Your task to perform on an android device: open app "Yahoo Mail" Image 0: 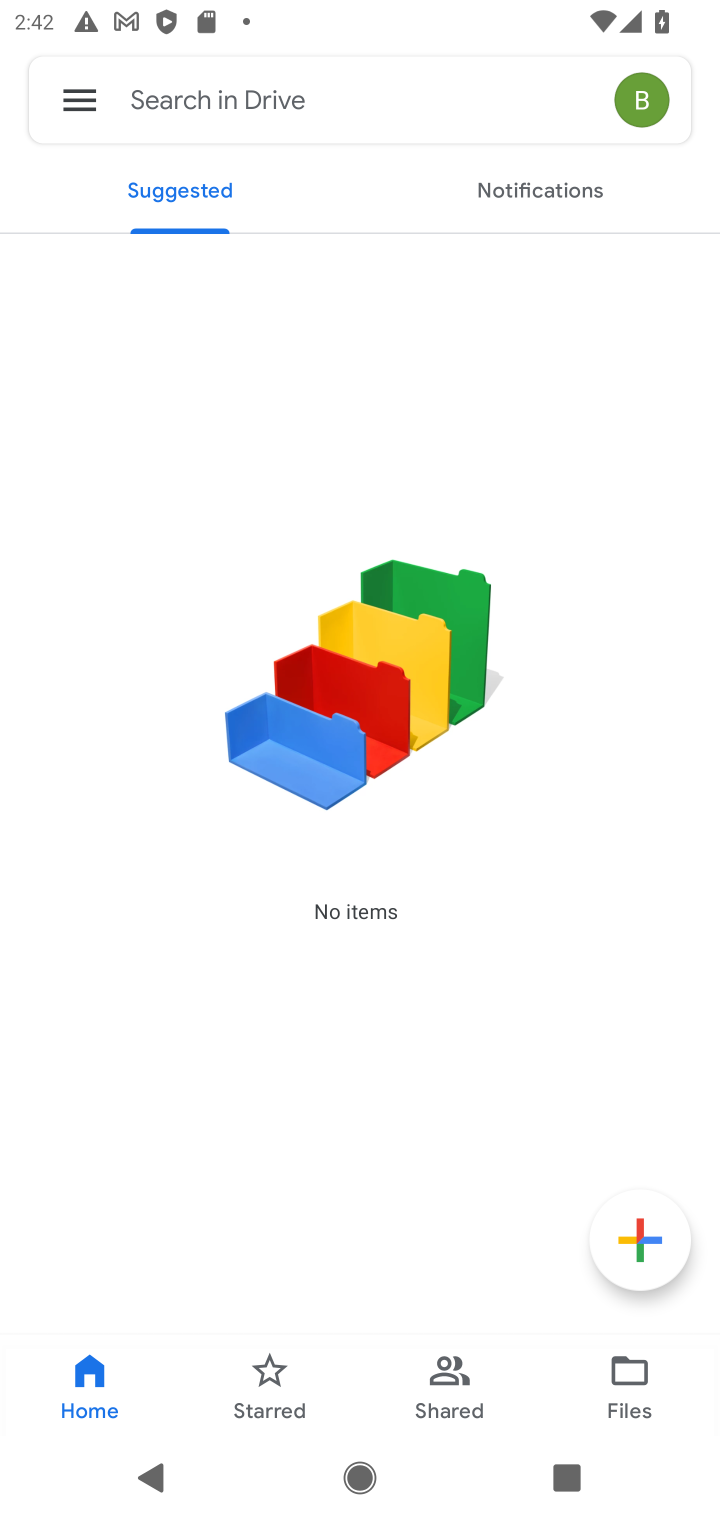
Step 0: press home button
Your task to perform on an android device: open app "Yahoo Mail" Image 1: 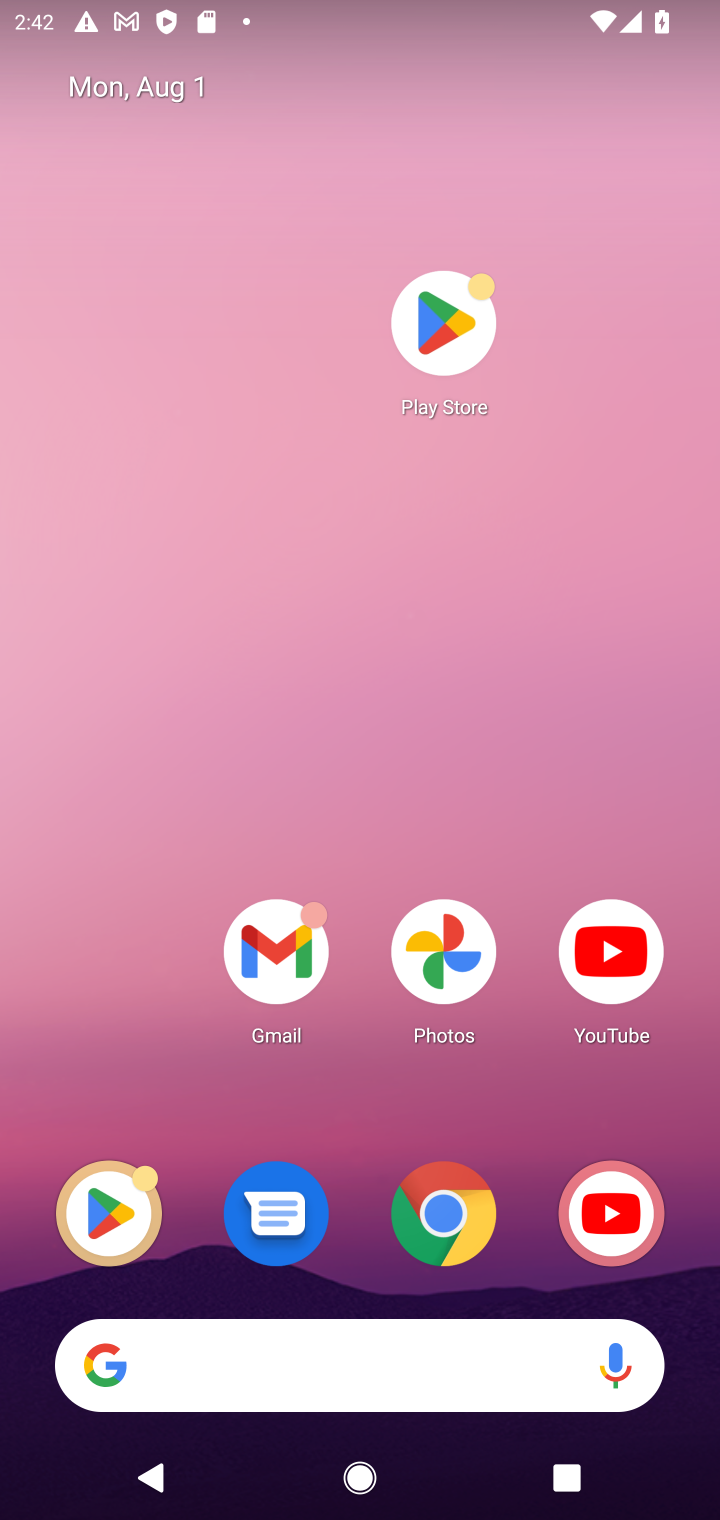
Step 1: click (454, 282)
Your task to perform on an android device: open app "Yahoo Mail" Image 2: 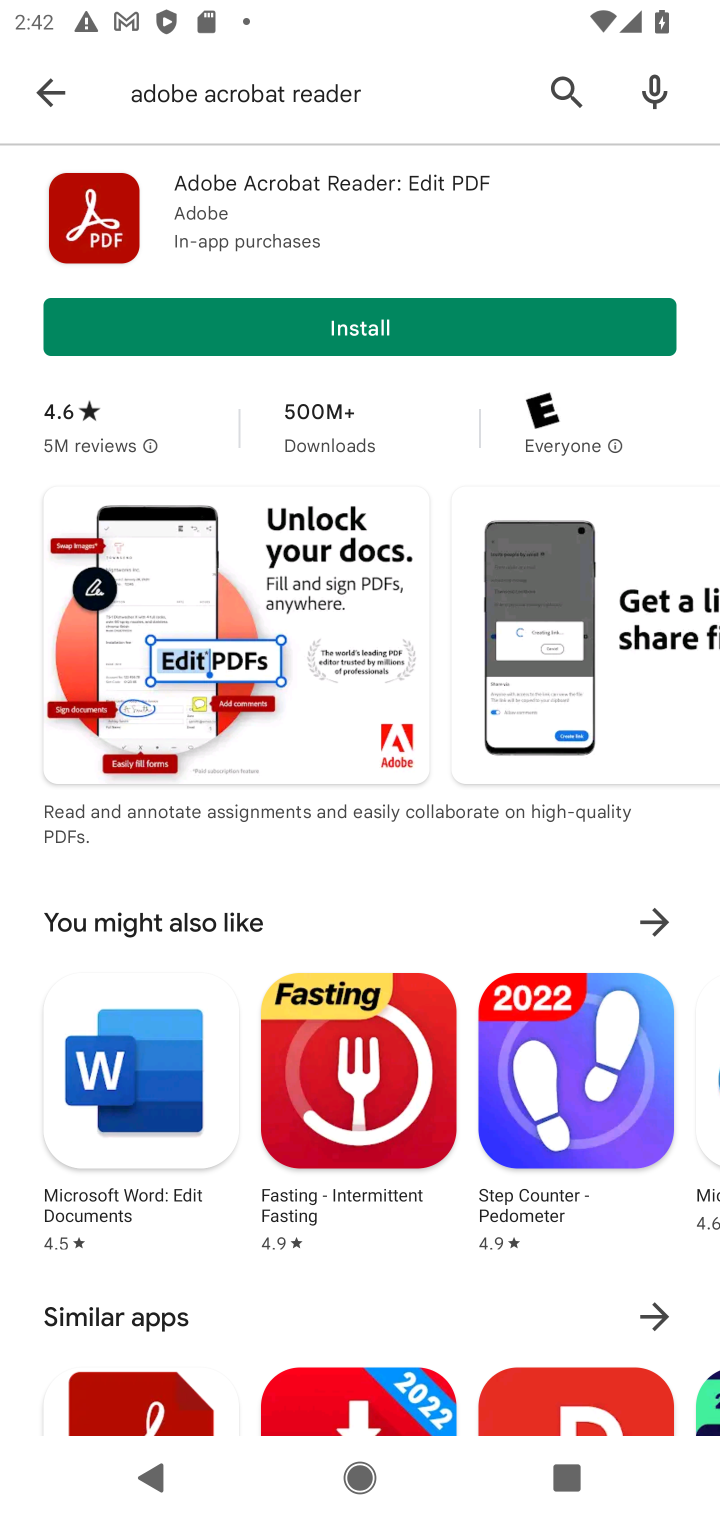
Step 2: click (545, 93)
Your task to perform on an android device: open app "Yahoo Mail" Image 3: 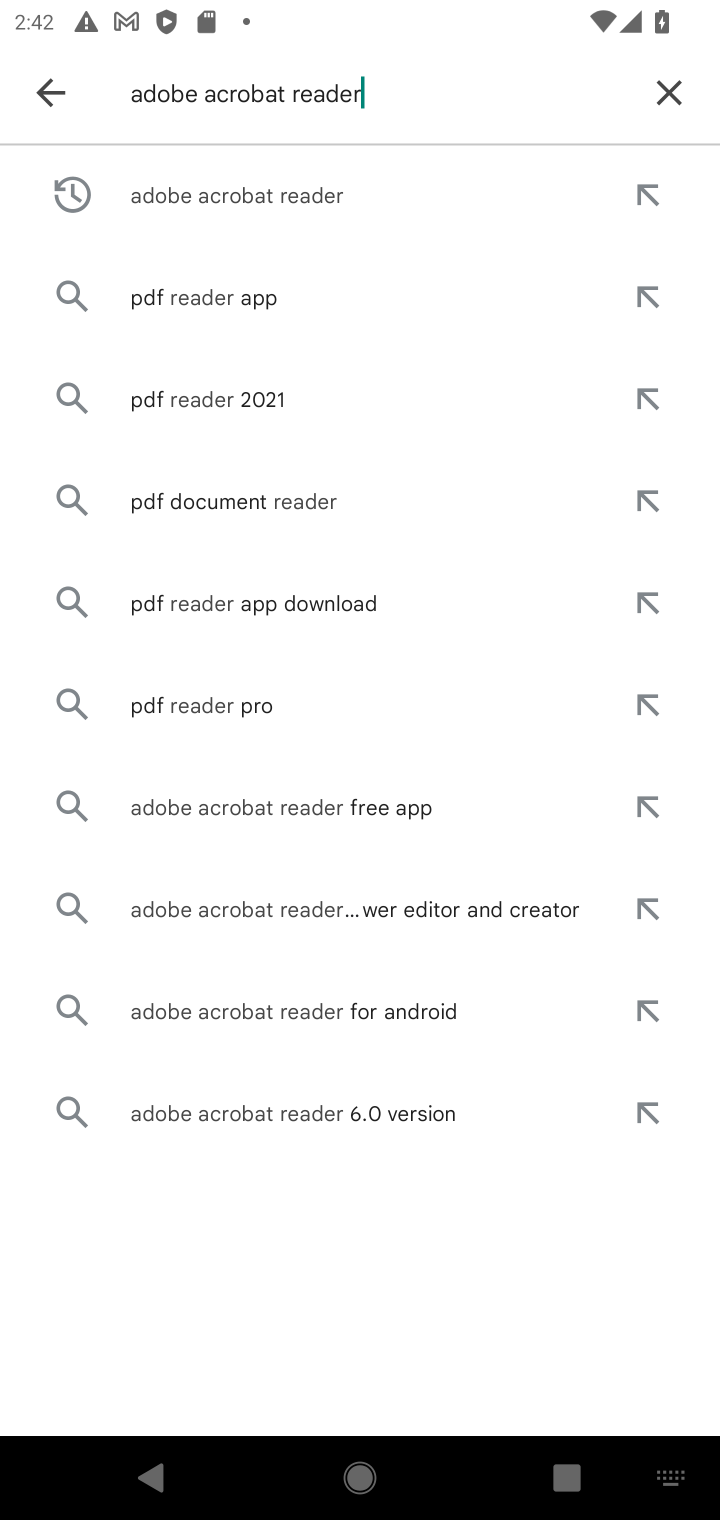
Step 3: click (659, 98)
Your task to perform on an android device: open app "Yahoo Mail" Image 4: 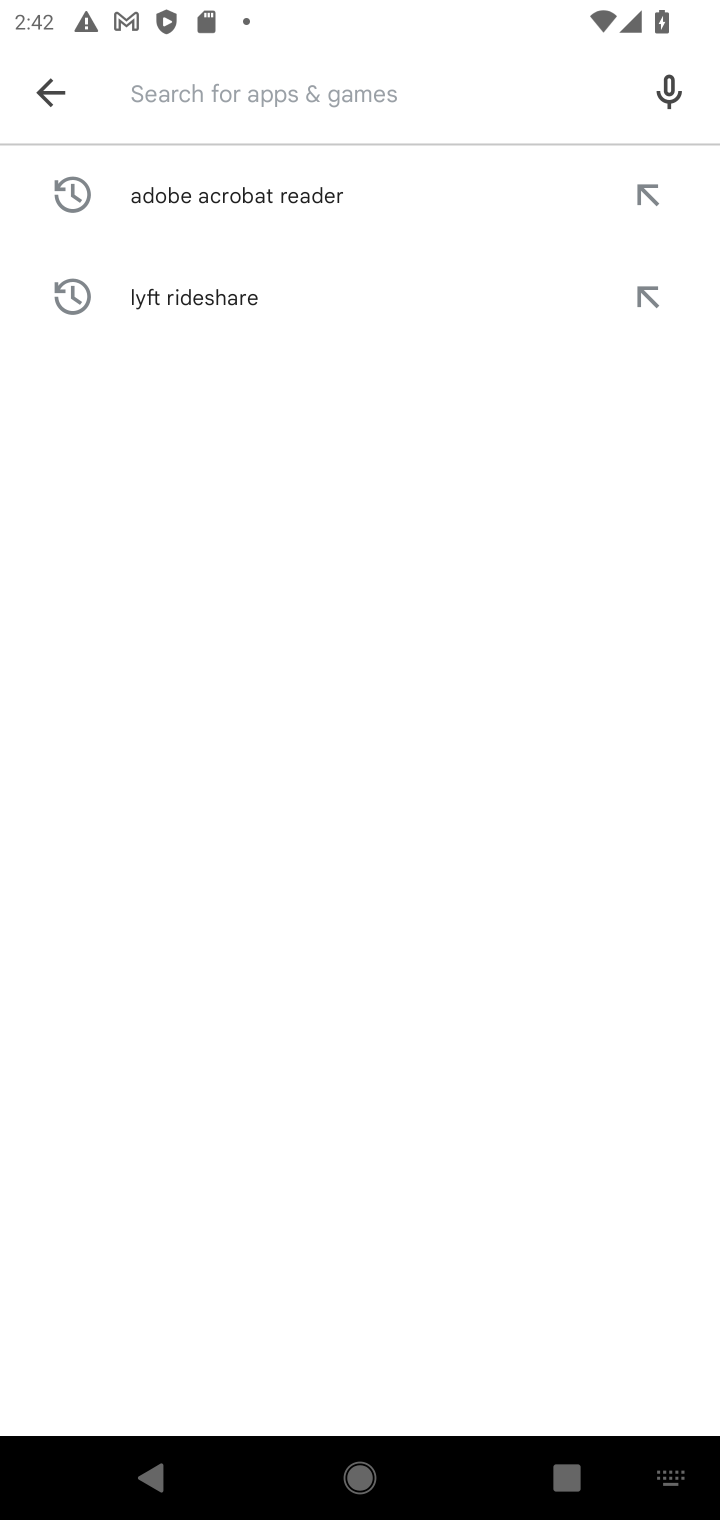
Step 4: click (450, 118)
Your task to perform on an android device: open app "Yahoo Mail" Image 5: 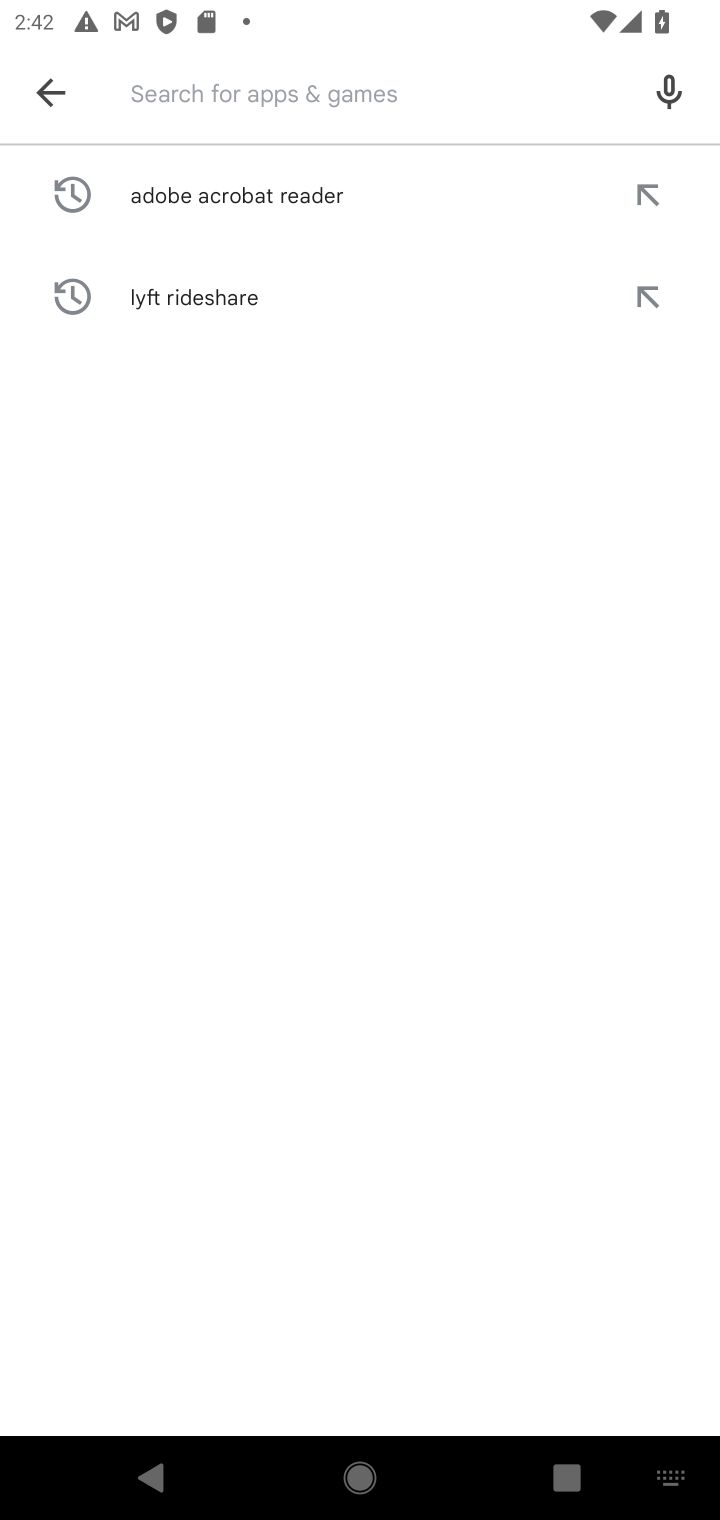
Step 5: type "yahoo mail"
Your task to perform on an android device: open app "Yahoo Mail" Image 6: 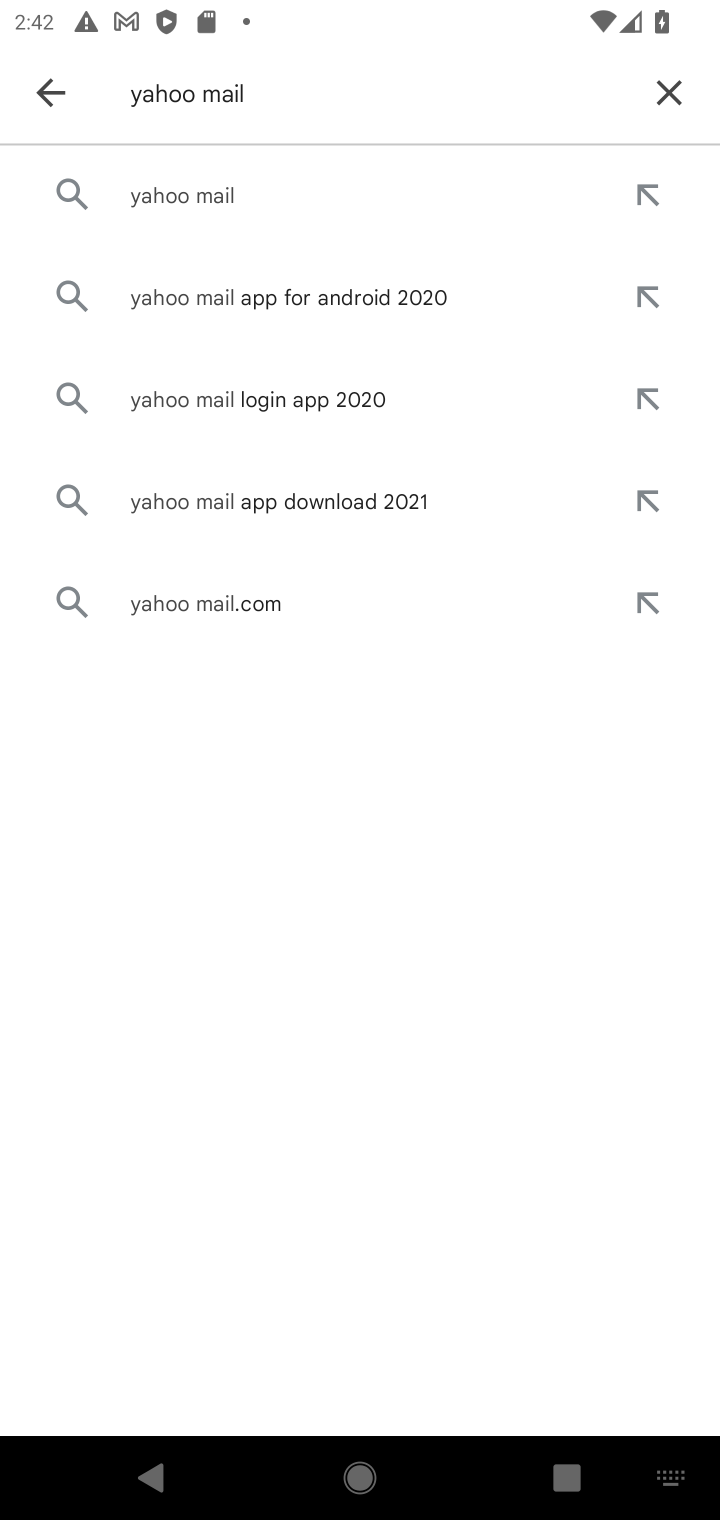
Step 6: click (352, 224)
Your task to perform on an android device: open app "Yahoo Mail" Image 7: 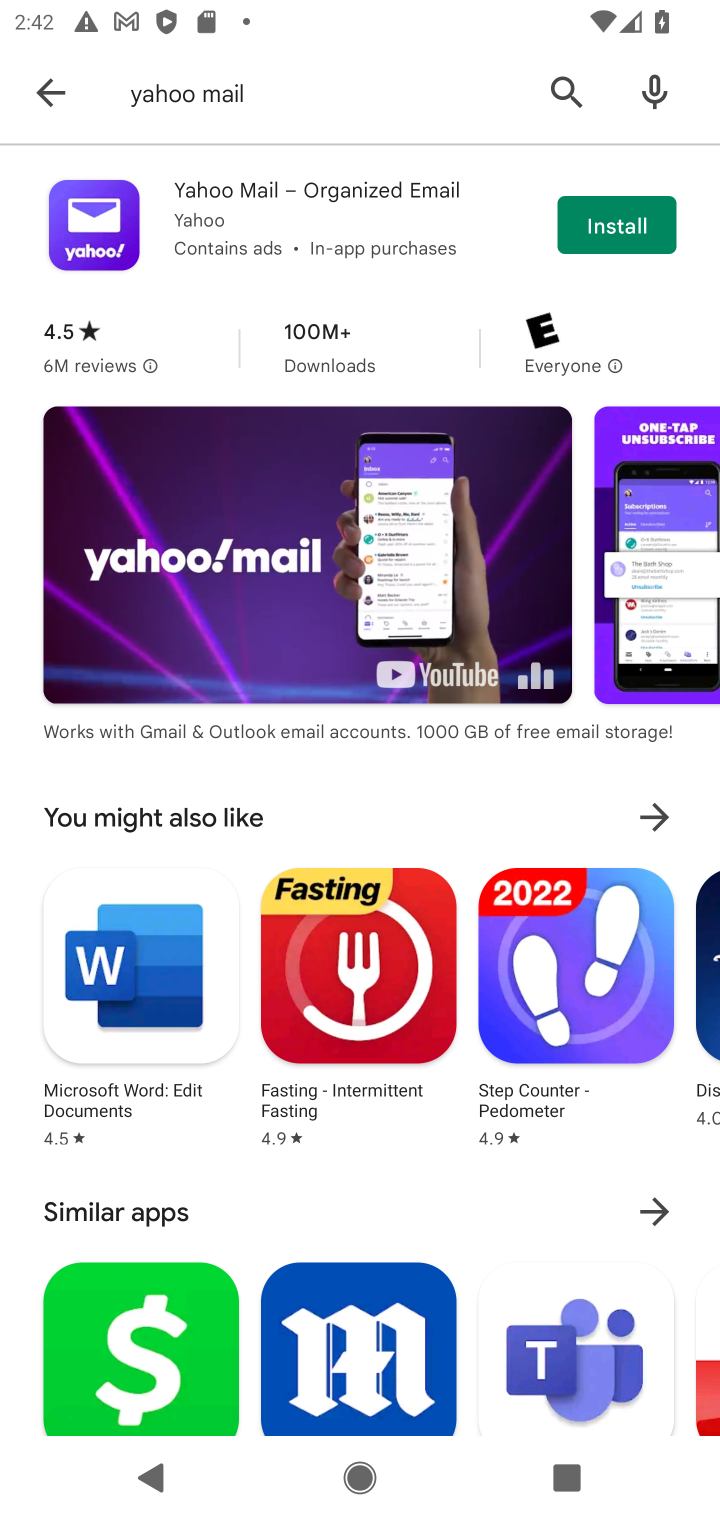
Step 7: task complete